Your task to perform on an android device: turn on showing notifications on the lock screen Image 0: 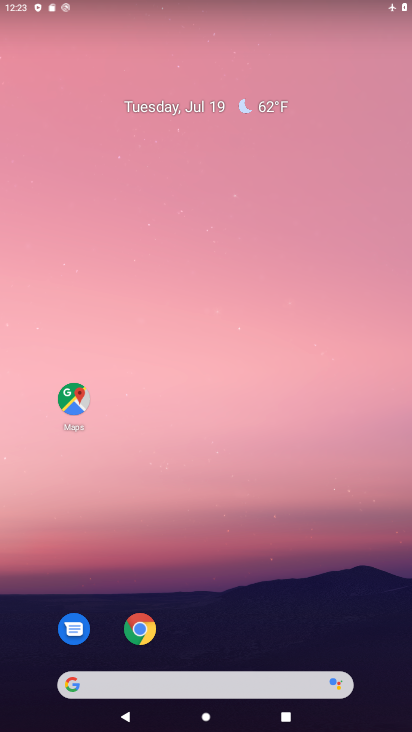
Step 0: drag from (243, 663) to (248, 15)
Your task to perform on an android device: turn on showing notifications on the lock screen Image 1: 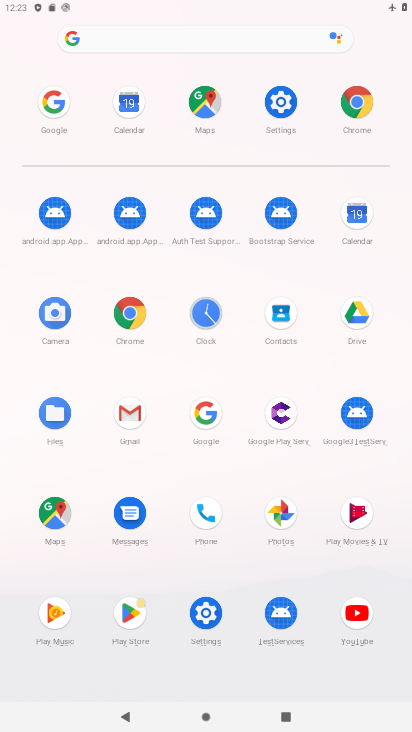
Step 1: click (217, 615)
Your task to perform on an android device: turn on showing notifications on the lock screen Image 2: 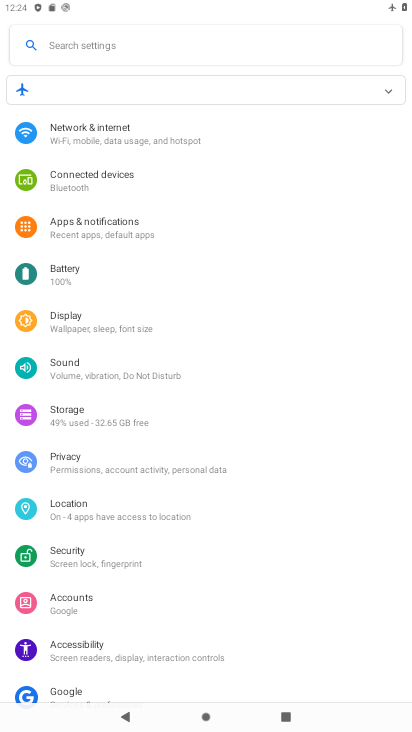
Step 2: click (88, 221)
Your task to perform on an android device: turn on showing notifications on the lock screen Image 3: 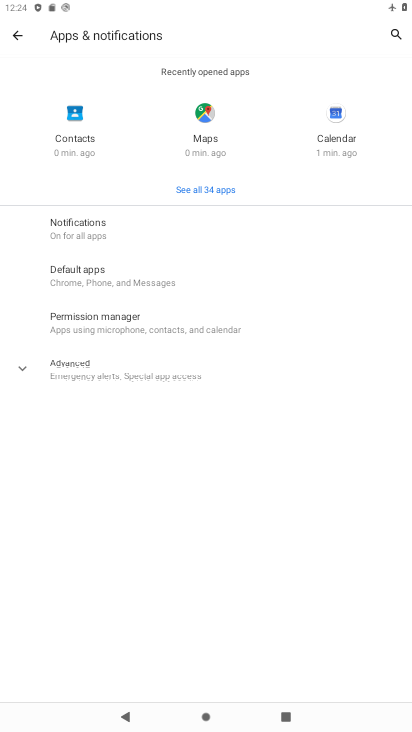
Step 3: click (71, 232)
Your task to perform on an android device: turn on showing notifications on the lock screen Image 4: 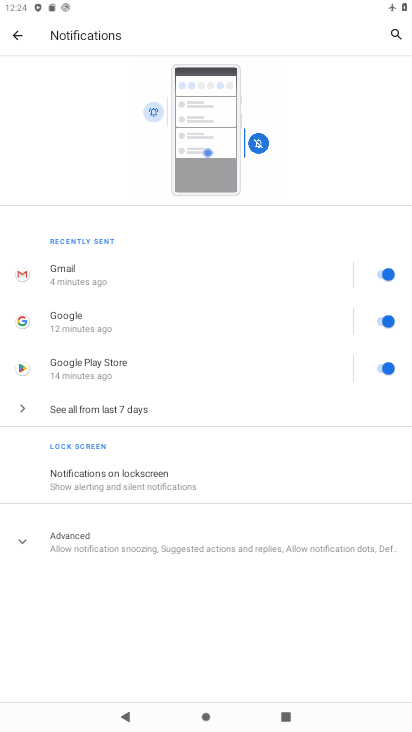
Step 4: click (133, 485)
Your task to perform on an android device: turn on showing notifications on the lock screen Image 5: 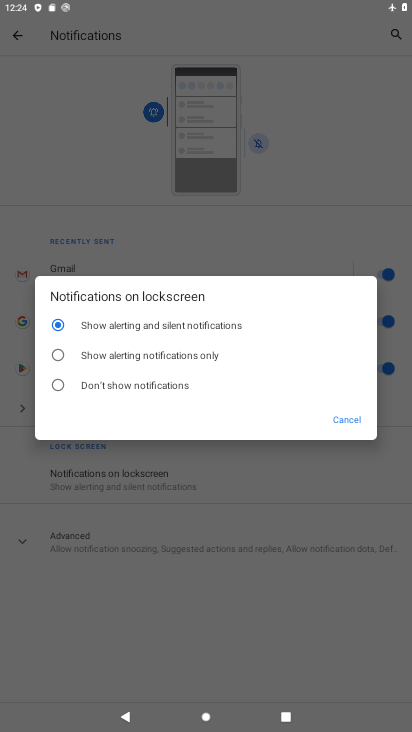
Step 5: click (96, 319)
Your task to perform on an android device: turn on showing notifications on the lock screen Image 6: 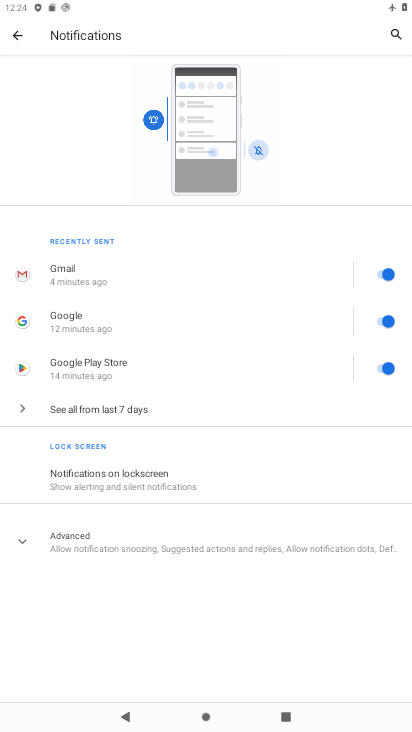
Step 6: task complete